Your task to perform on an android device: open sync settings in chrome Image 0: 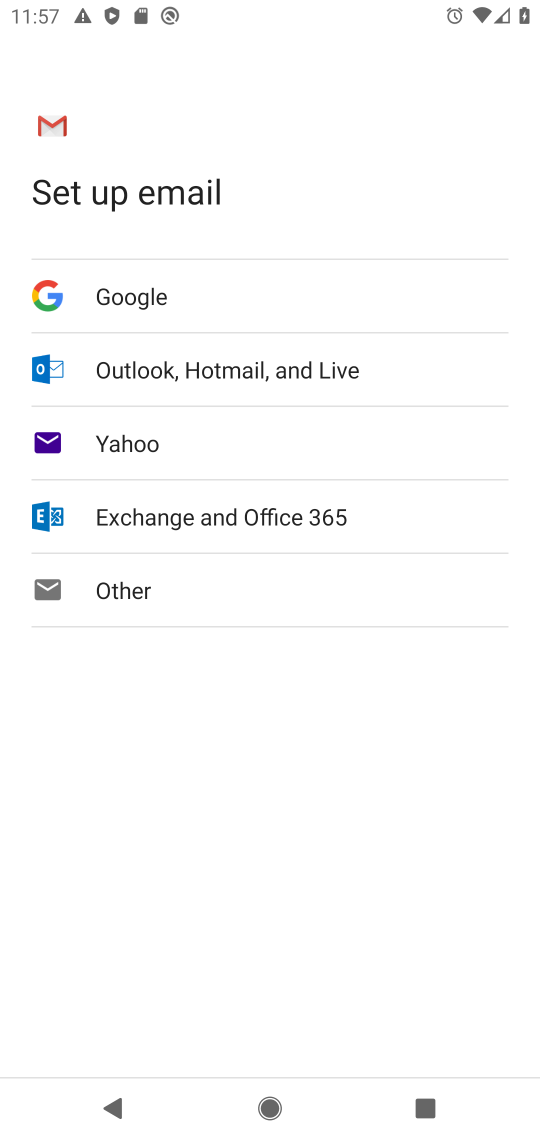
Step 0: press home button
Your task to perform on an android device: open sync settings in chrome Image 1: 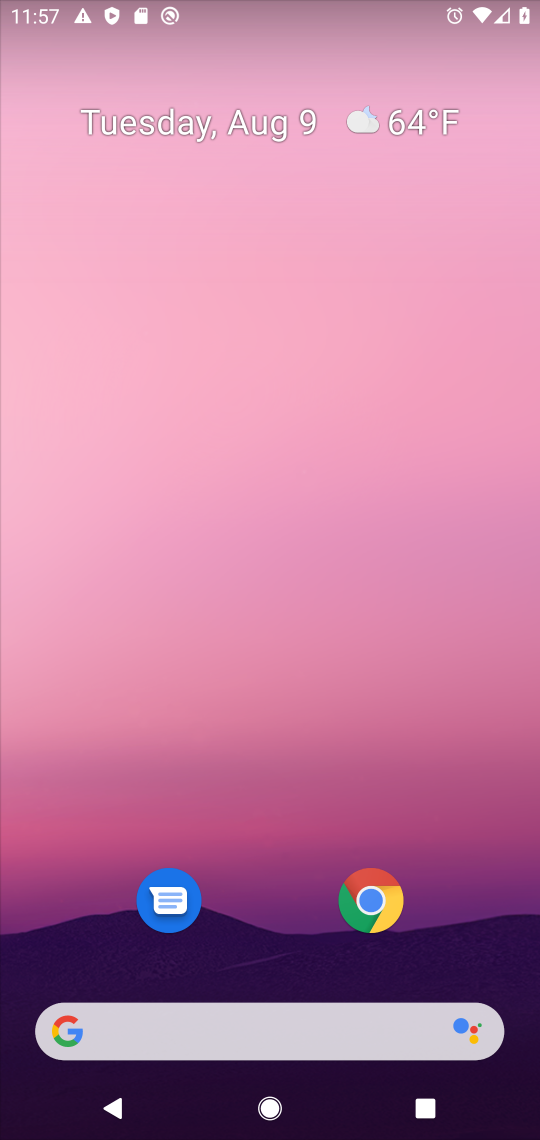
Step 1: click (371, 910)
Your task to perform on an android device: open sync settings in chrome Image 2: 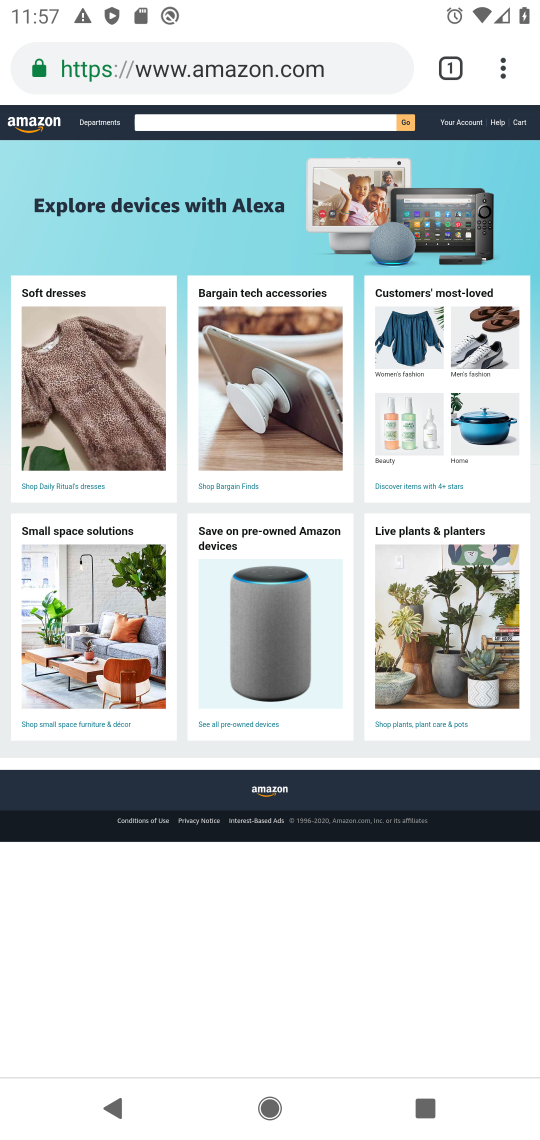
Step 2: click (494, 71)
Your task to perform on an android device: open sync settings in chrome Image 3: 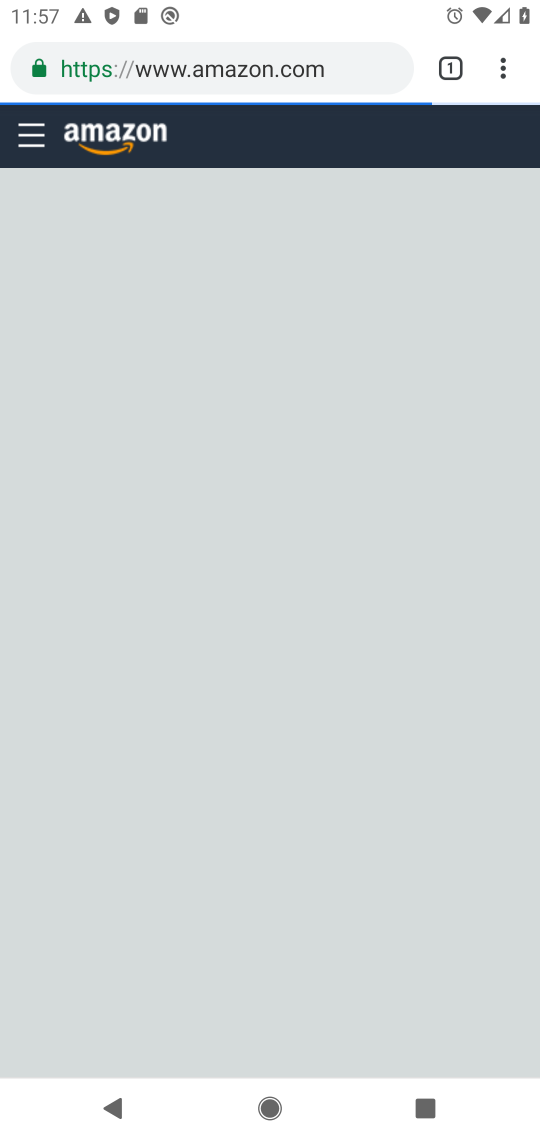
Step 3: click (494, 72)
Your task to perform on an android device: open sync settings in chrome Image 4: 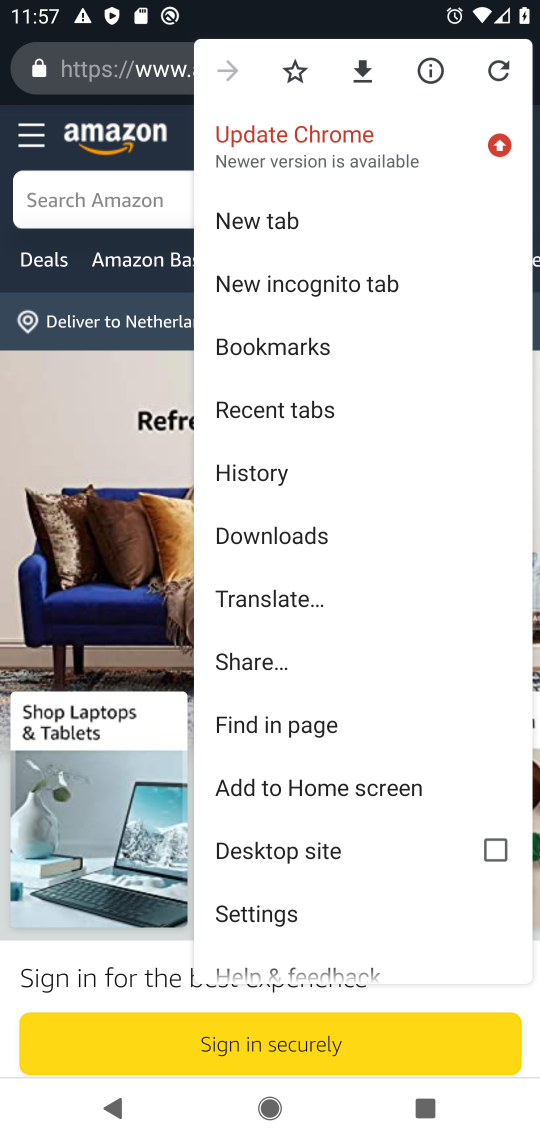
Step 4: click (320, 910)
Your task to perform on an android device: open sync settings in chrome Image 5: 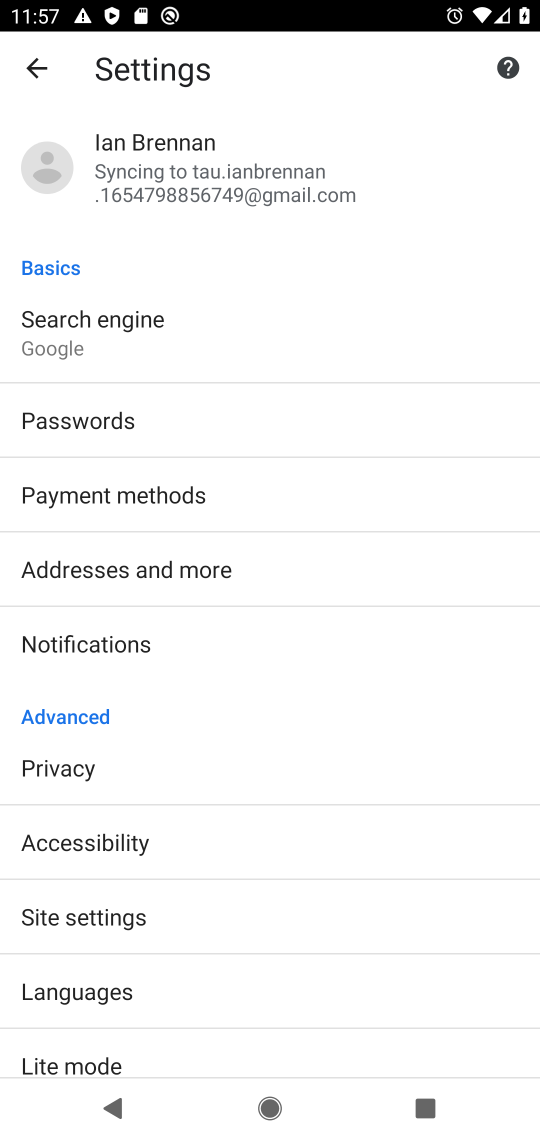
Step 5: click (263, 175)
Your task to perform on an android device: open sync settings in chrome Image 6: 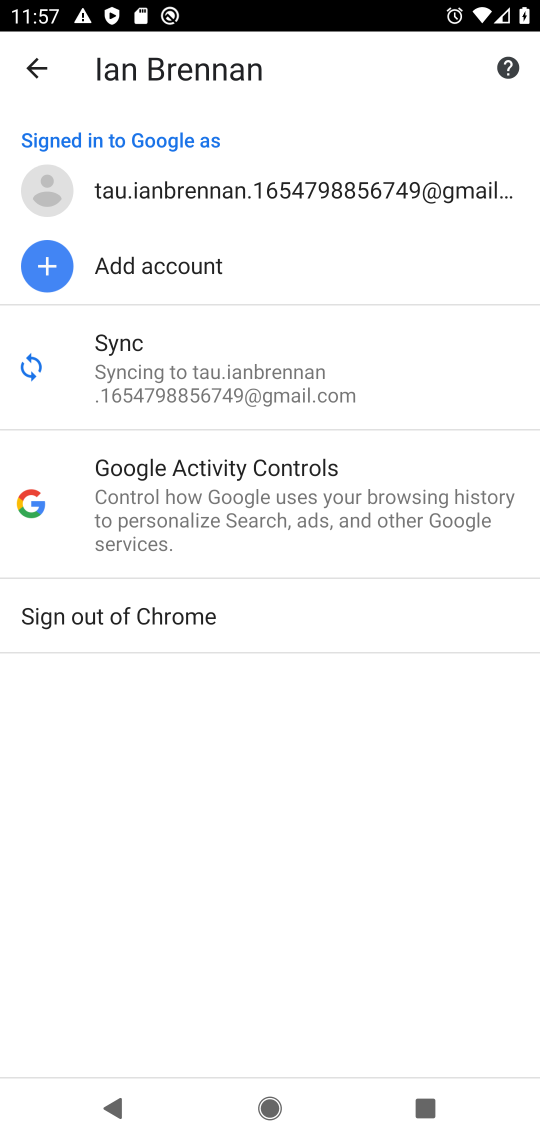
Step 6: click (235, 380)
Your task to perform on an android device: open sync settings in chrome Image 7: 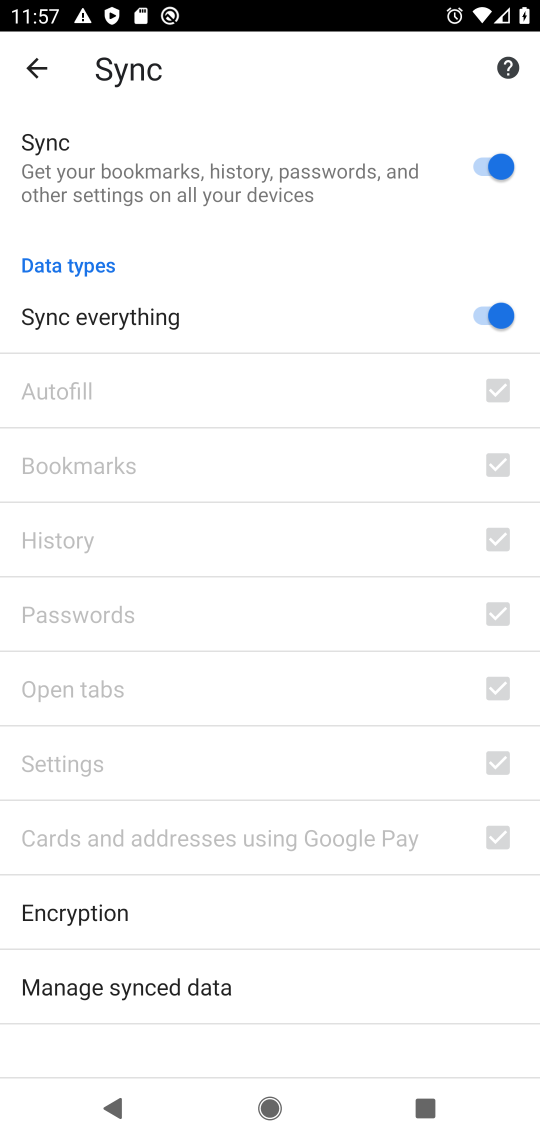
Step 7: task complete